Your task to perform on an android device: Open eBay Image 0: 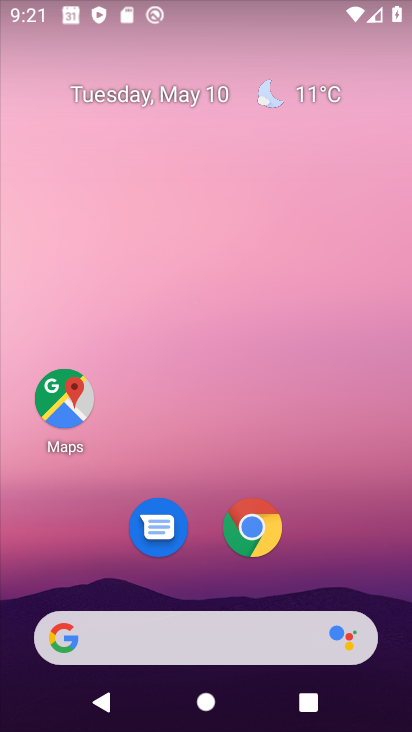
Step 0: click (246, 528)
Your task to perform on an android device: Open eBay Image 1: 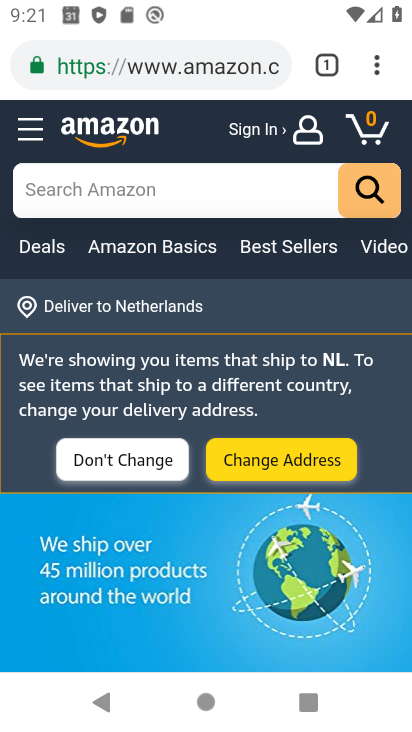
Step 1: click (164, 71)
Your task to perform on an android device: Open eBay Image 2: 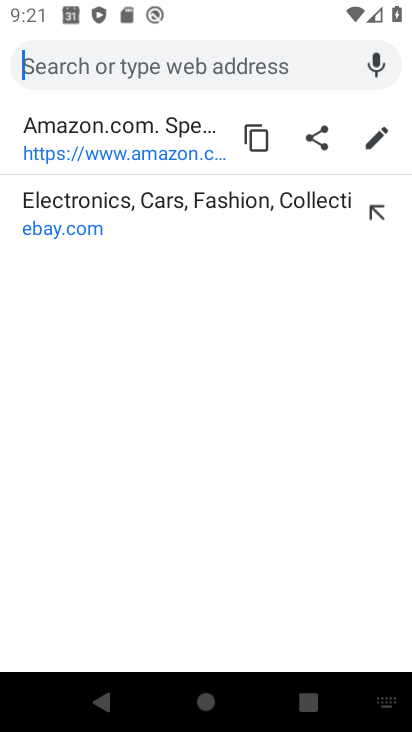
Step 2: type "ebay.com"
Your task to perform on an android device: Open eBay Image 3: 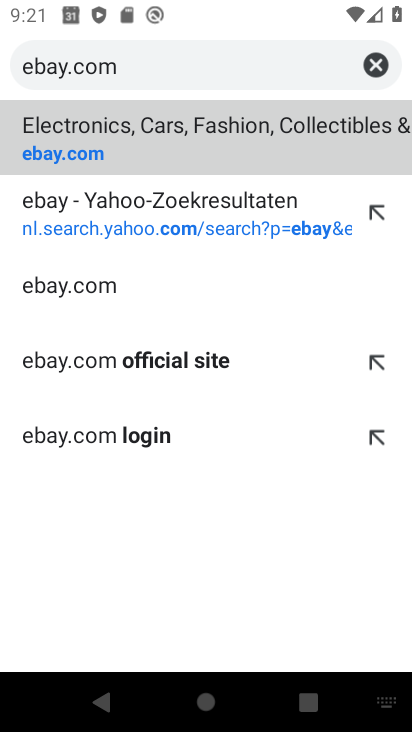
Step 3: click (314, 143)
Your task to perform on an android device: Open eBay Image 4: 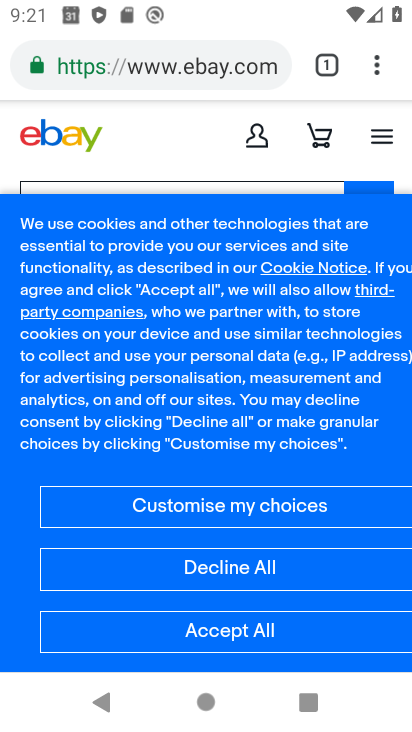
Step 4: task complete